Your task to perform on an android device: turn on the 12-hour format for clock Image 0: 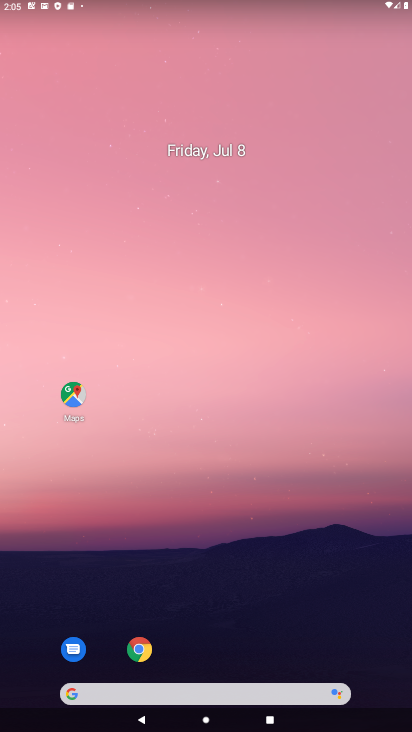
Step 0: press home button
Your task to perform on an android device: turn on the 12-hour format for clock Image 1: 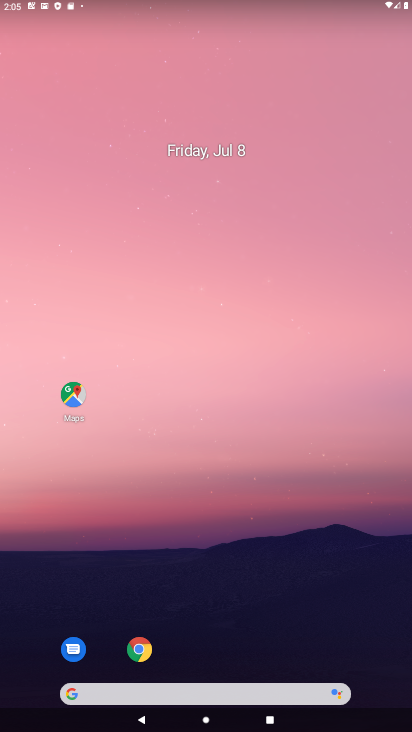
Step 1: drag from (374, 636) to (357, 185)
Your task to perform on an android device: turn on the 12-hour format for clock Image 2: 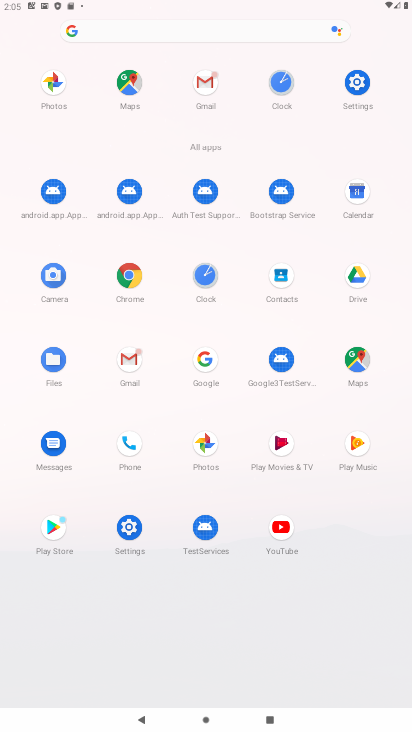
Step 2: click (203, 275)
Your task to perform on an android device: turn on the 12-hour format for clock Image 3: 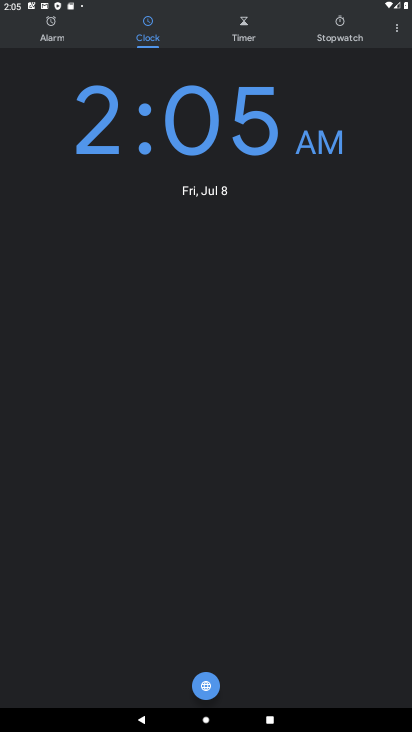
Step 3: click (395, 32)
Your task to perform on an android device: turn on the 12-hour format for clock Image 4: 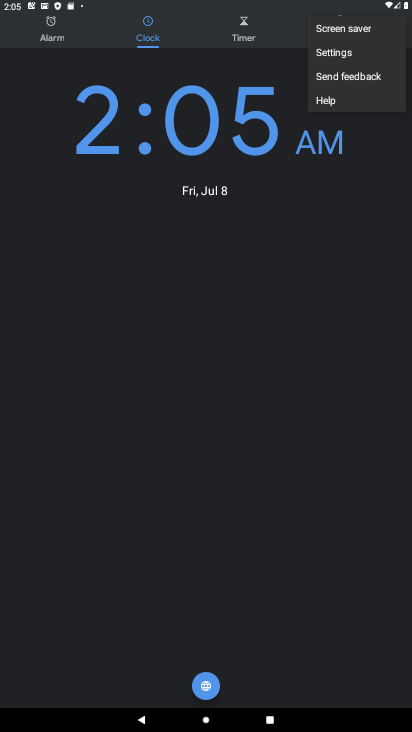
Step 4: click (330, 50)
Your task to perform on an android device: turn on the 12-hour format for clock Image 5: 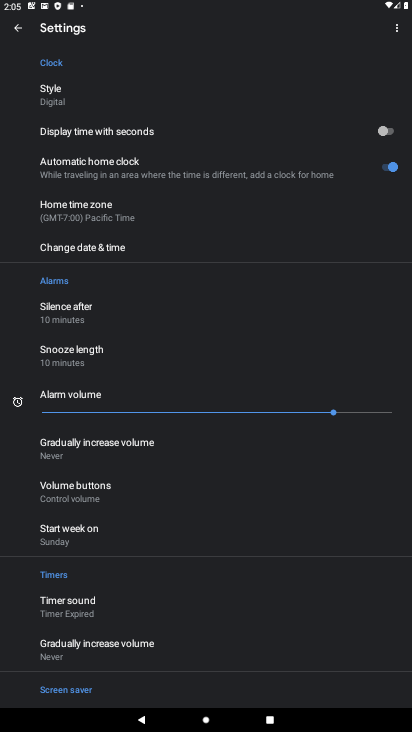
Step 5: click (91, 251)
Your task to perform on an android device: turn on the 12-hour format for clock Image 6: 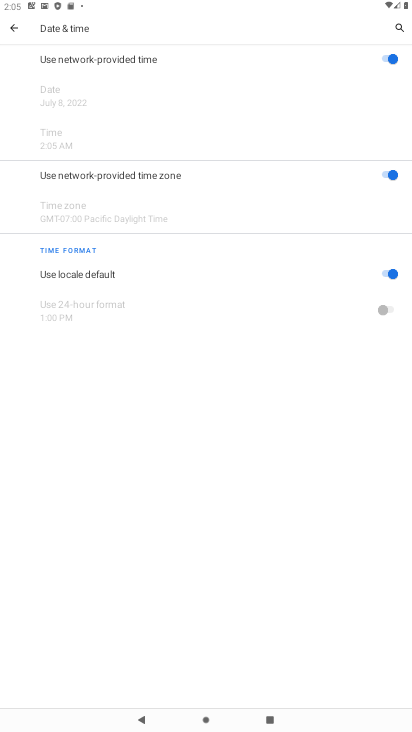
Step 6: task complete